Your task to perform on an android device: turn on the 24-hour format for clock Image 0: 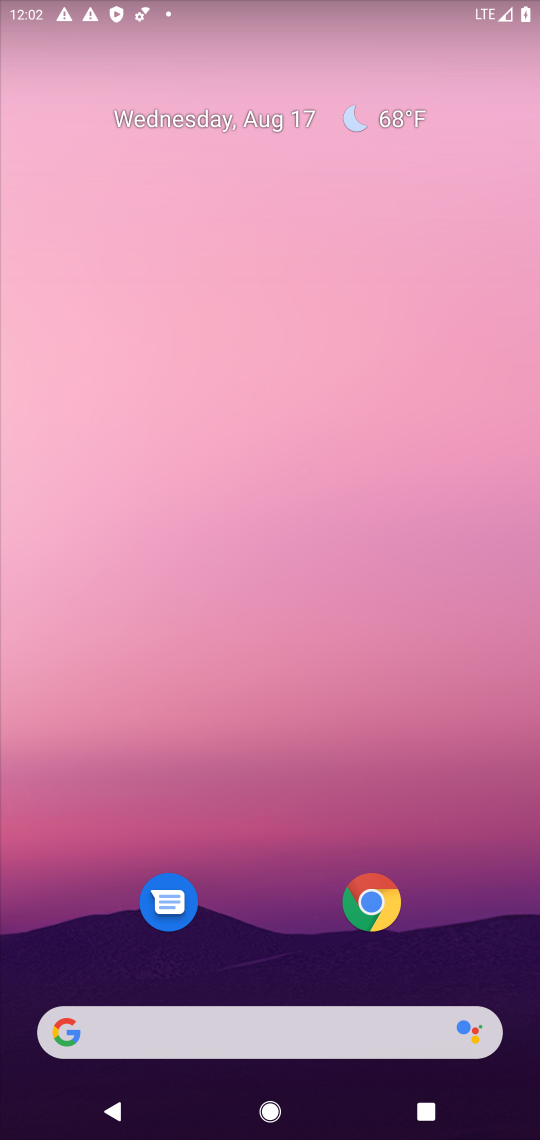
Step 0: drag from (230, 960) to (138, 400)
Your task to perform on an android device: turn on the 24-hour format for clock Image 1: 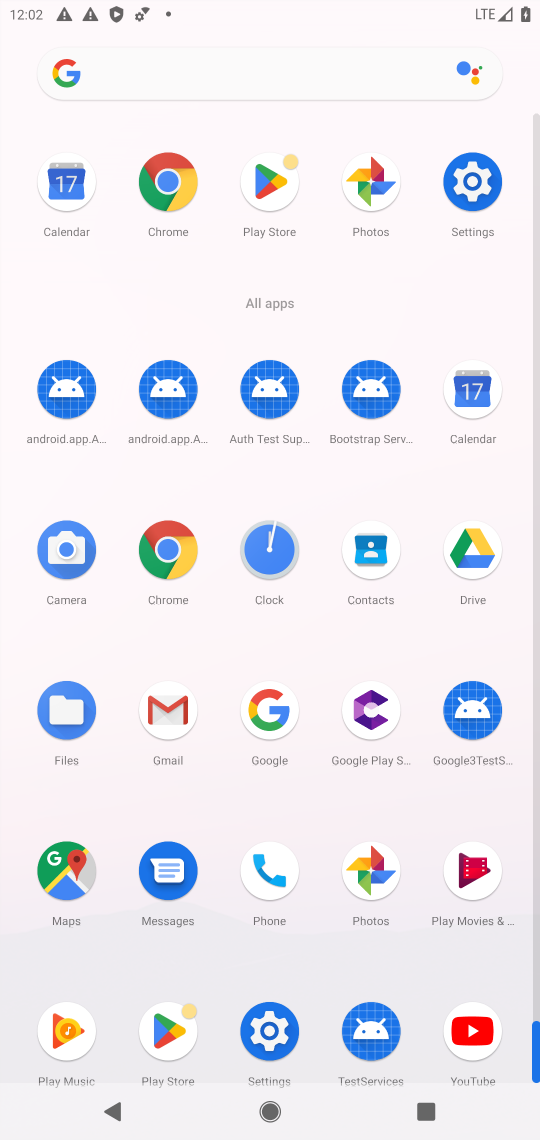
Step 1: click (264, 551)
Your task to perform on an android device: turn on the 24-hour format for clock Image 2: 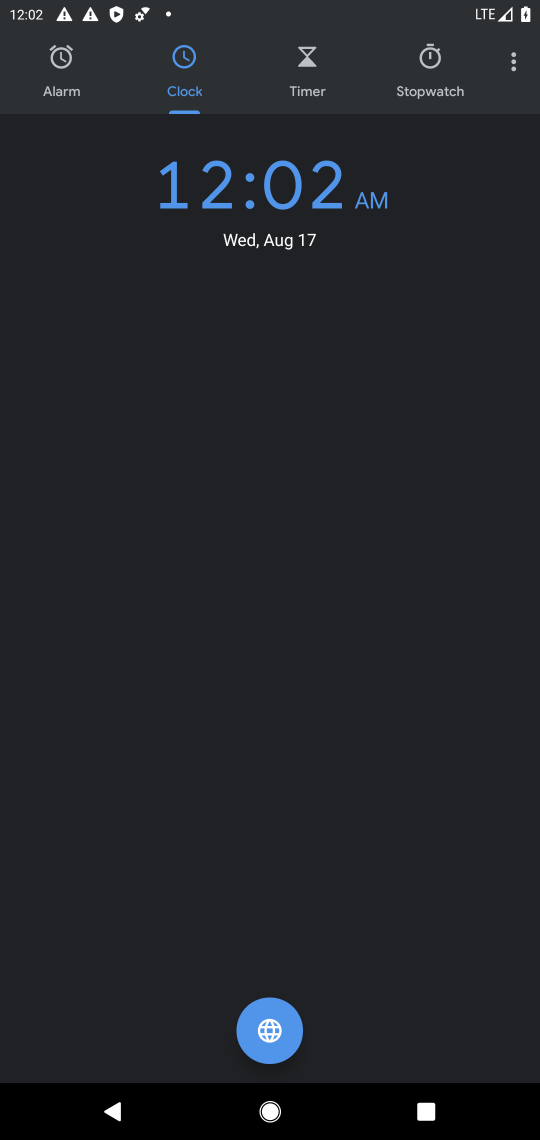
Step 2: press home button
Your task to perform on an android device: turn on the 24-hour format for clock Image 3: 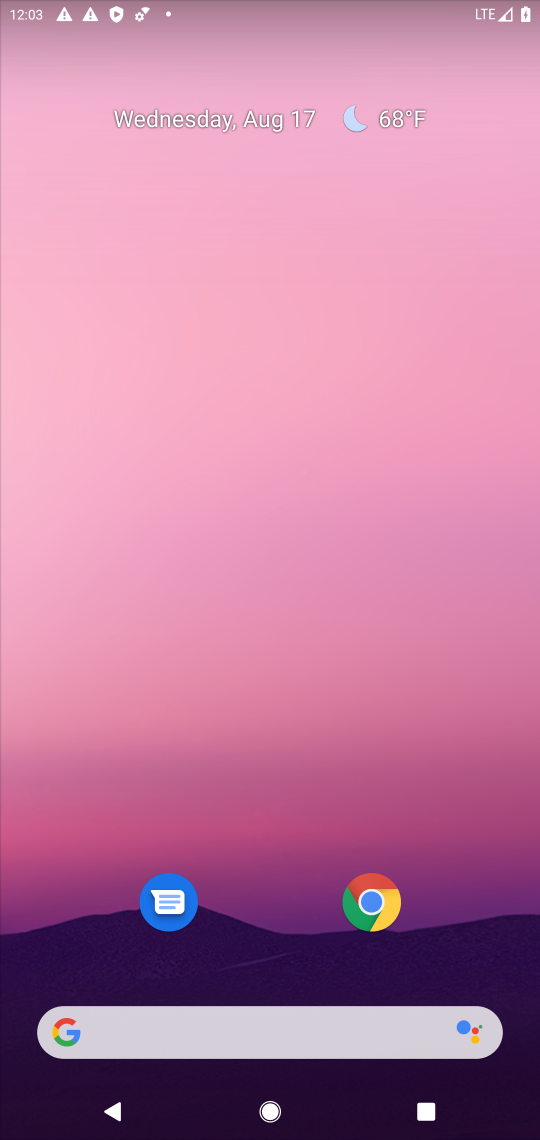
Step 3: drag from (235, 961) to (347, 7)
Your task to perform on an android device: turn on the 24-hour format for clock Image 4: 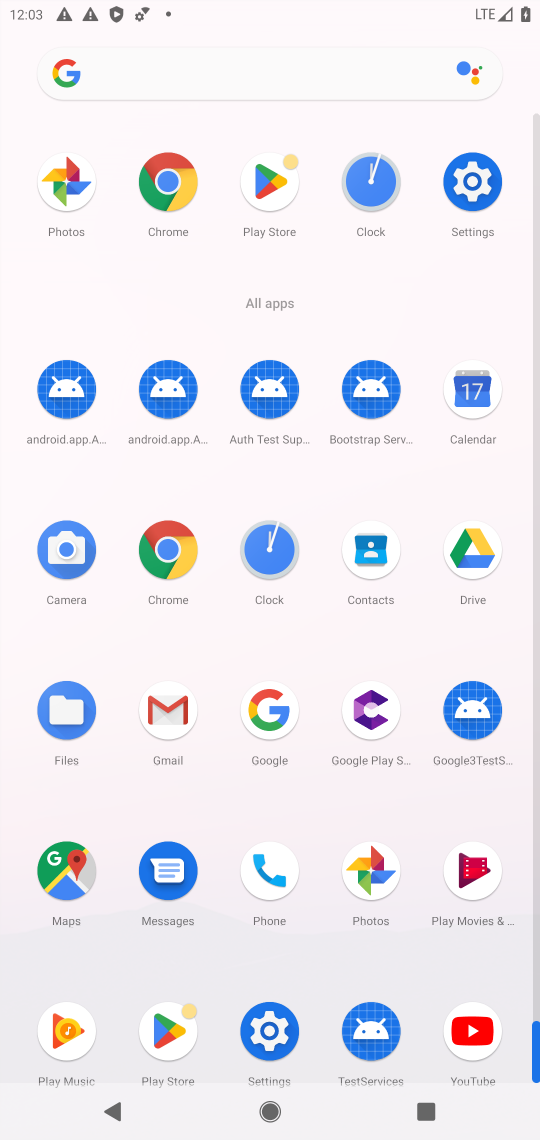
Step 4: click (266, 1032)
Your task to perform on an android device: turn on the 24-hour format for clock Image 5: 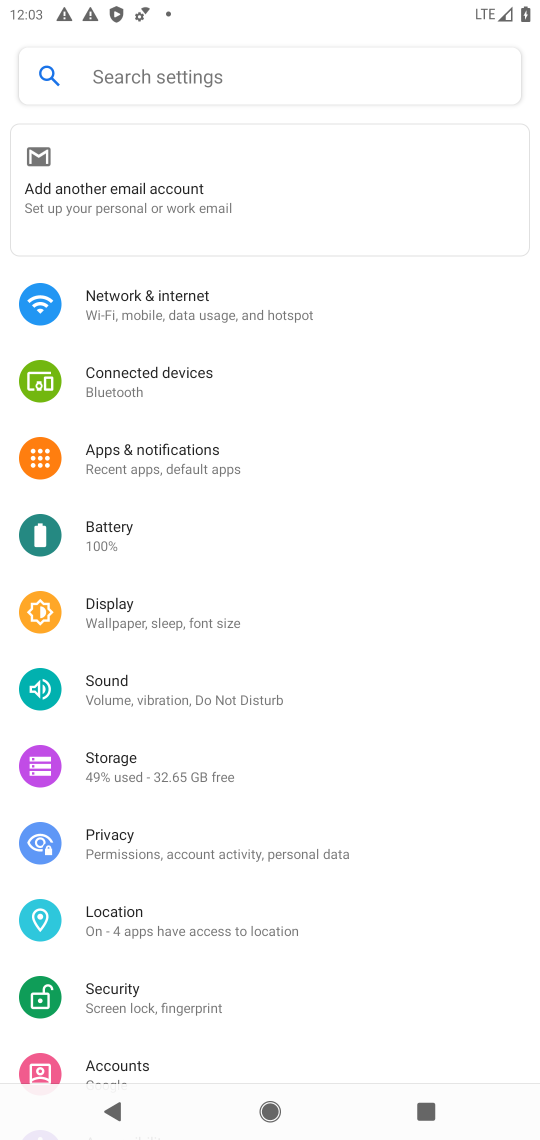
Step 5: drag from (185, 1023) to (247, 486)
Your task to perform on an android device: turn on the 24-hour format for clock Image 6: 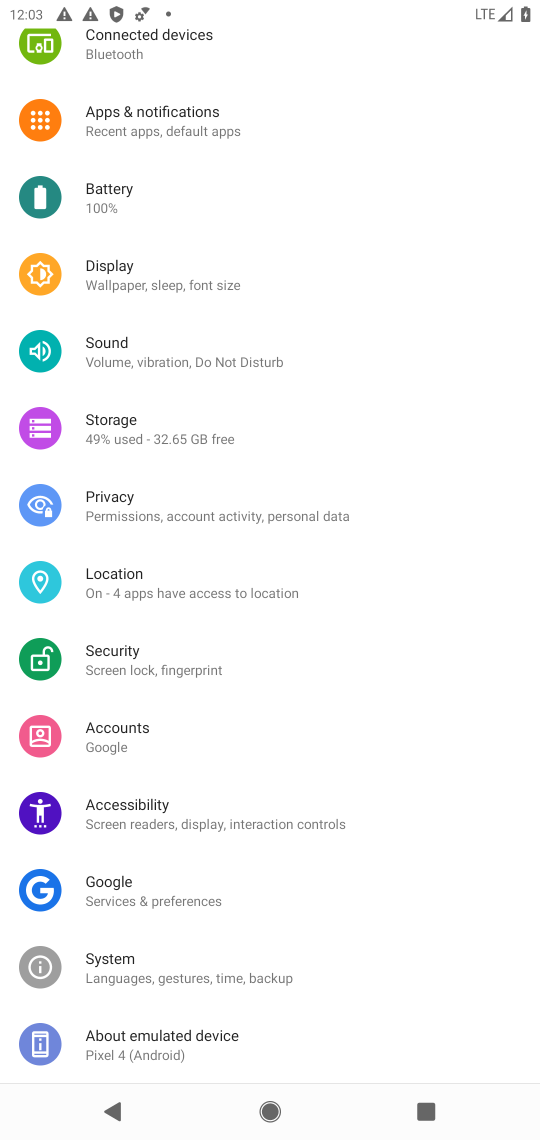
Step 6: click (126, 958)
Your task to perform on an android device: turn on the 24-hour format for clock Image 7: 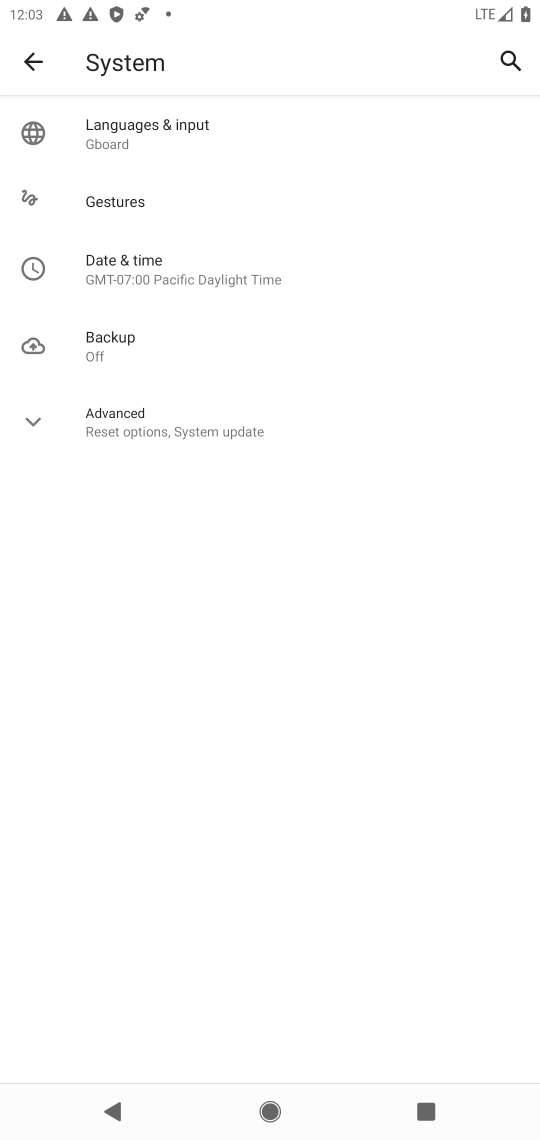
Step 7: click (199, 277)
Your task to perform on an android device: turn on the 24-hour format for clock Image 8: 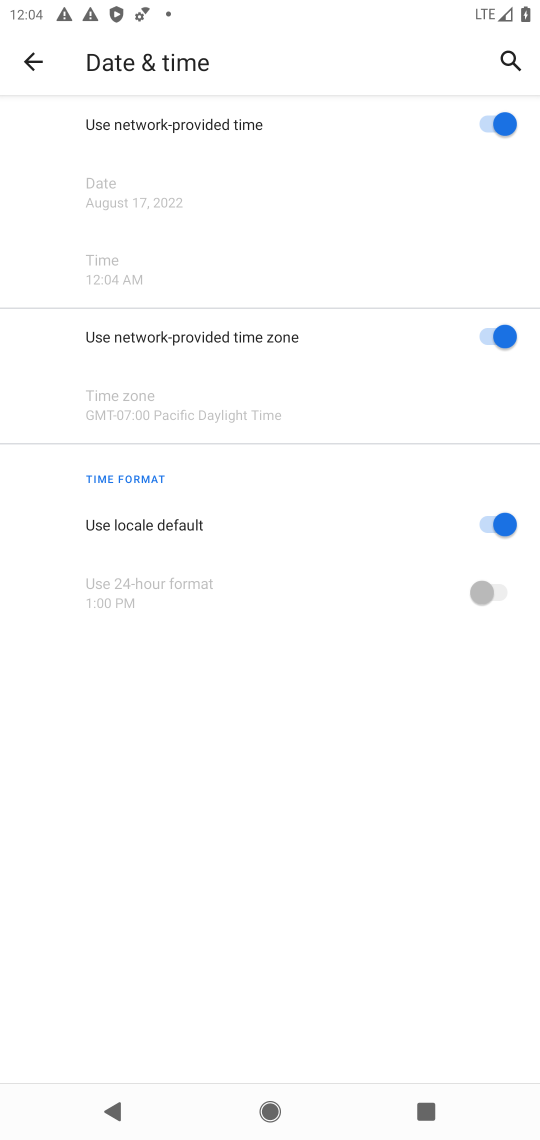
Step 8: click (466, 522)
Your task to perform on an android device: turn on the 24-hour format for clock Image 9: 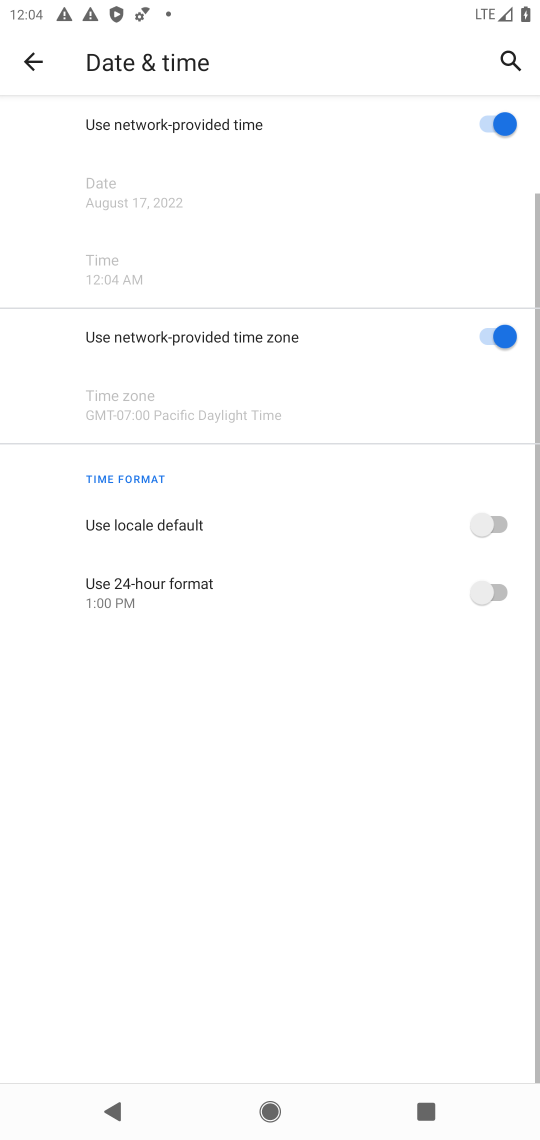
Step 9: click (506, 587)
Your task to perform on an android device: turn on the 24-hour format for clock Image 10: 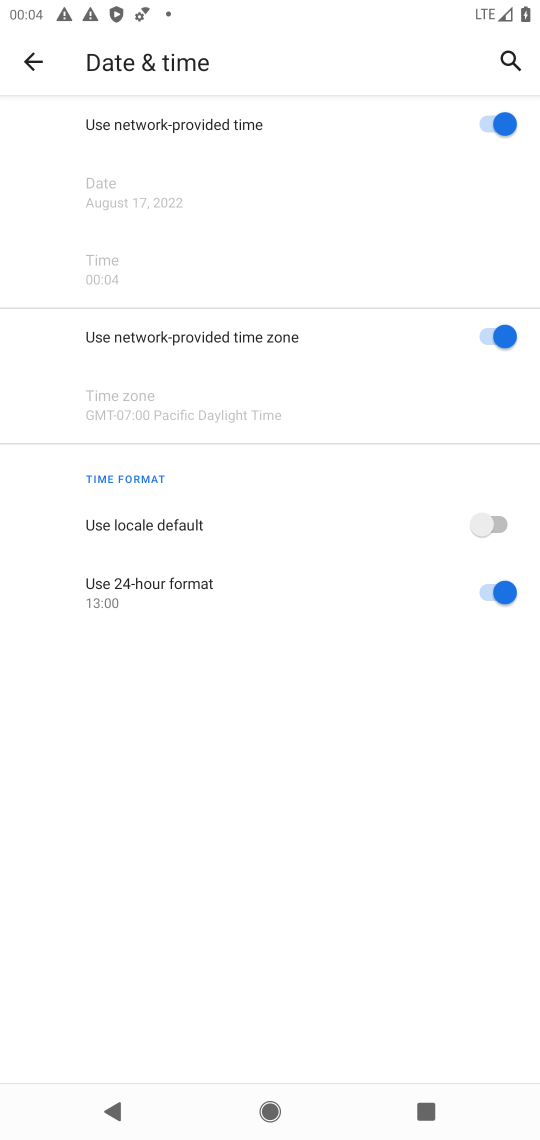
Step 10: task complete